Your task to perform on an android device: open a new tab in the chrome app Image 0: 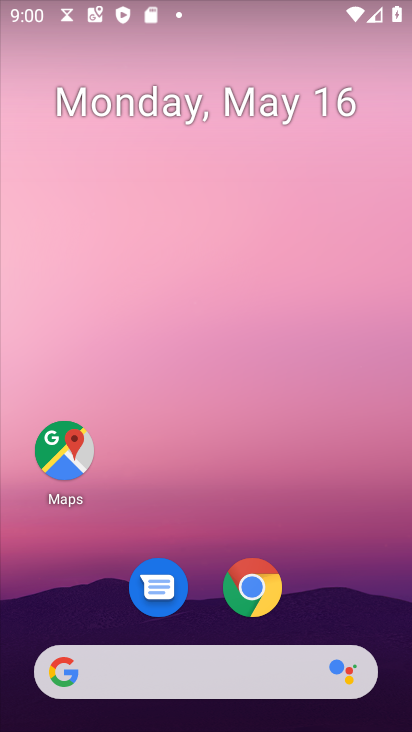
Step 0: click (253, 604)
Your task to perform on an android device: open a new tab in the chrome app Image 1: 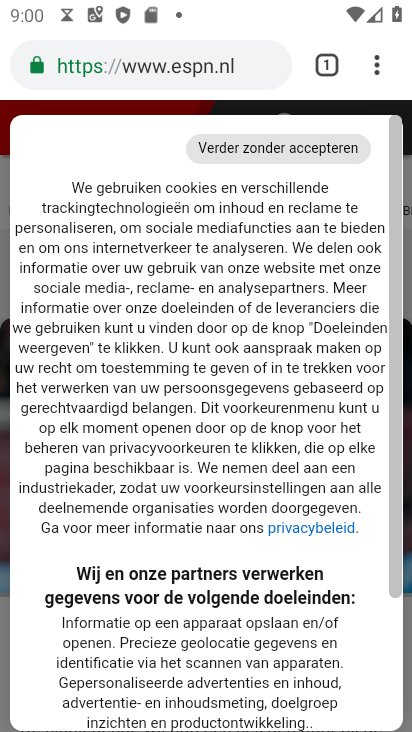
Step 1: click (379, 65)
Your task to perform on an android device: open a new tab in the chrome app Image 2: 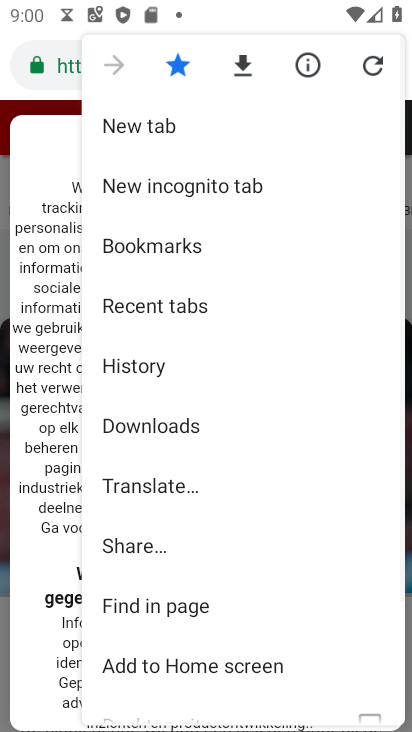
Step 2: click (223, 130)
Your task to perform on an android device: open a new tab in the chrome app Image 3: 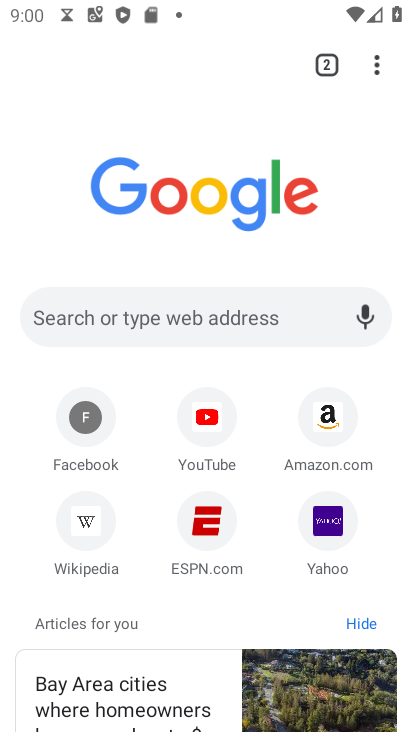
Step 3: task complete